Your task to perform on an android device: change text size in settings app Image 0: 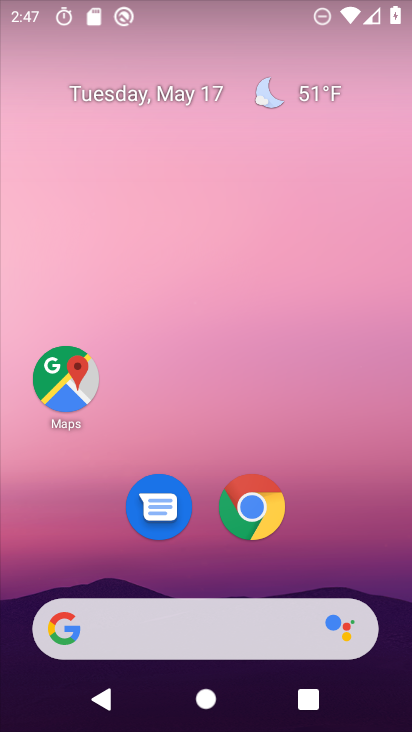
Step 0: drag from (198, 560) to (199, 66)
Your task to perform on an android device: change text size in settings app Image 1: 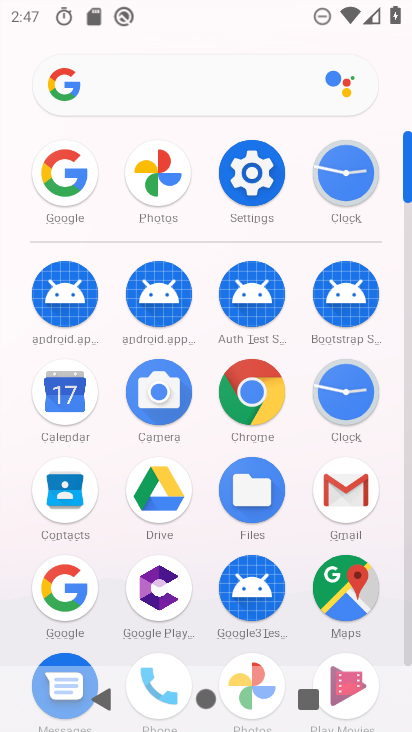
Step 1: click (262, 178)
Your task to perform on an android device: change text size in settings app Image 2: 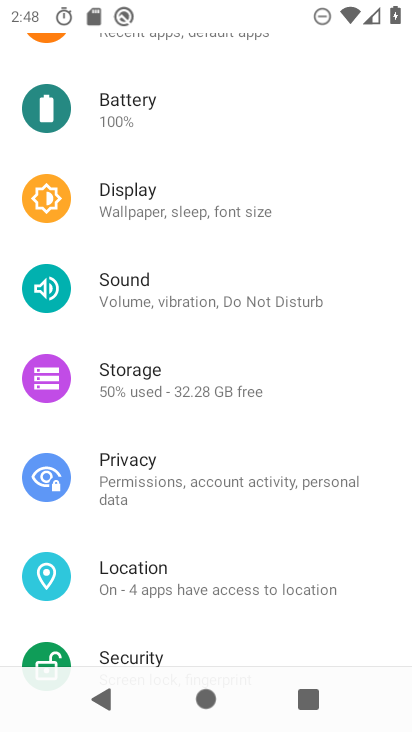
Step 2: drag from (177, 194) to (215, 391)
Your task to perform on an android device: change text size in settings app Image 3: 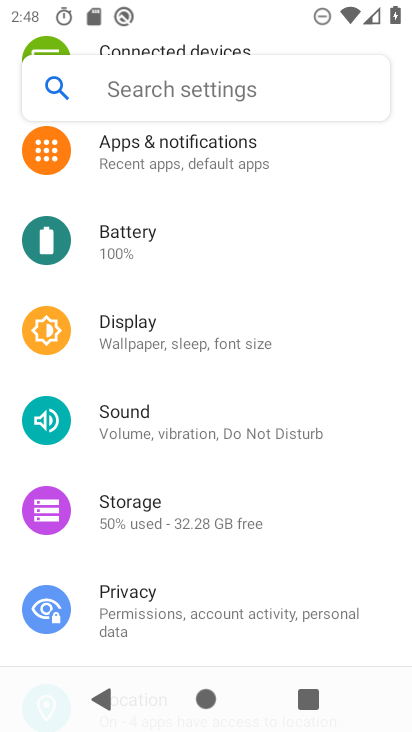
Step 3: click (157, 339)
Your task to perform on an android device: change text size in settings app Image 4: 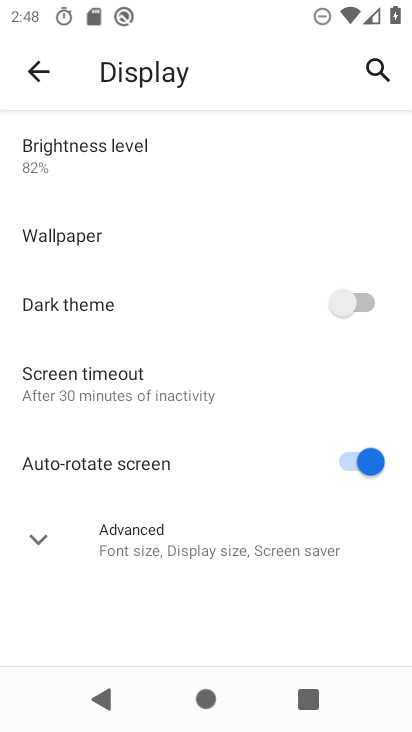
Step 4: click (134, 558)
Your task to perform on an android device: change text size in settings app Image 5: 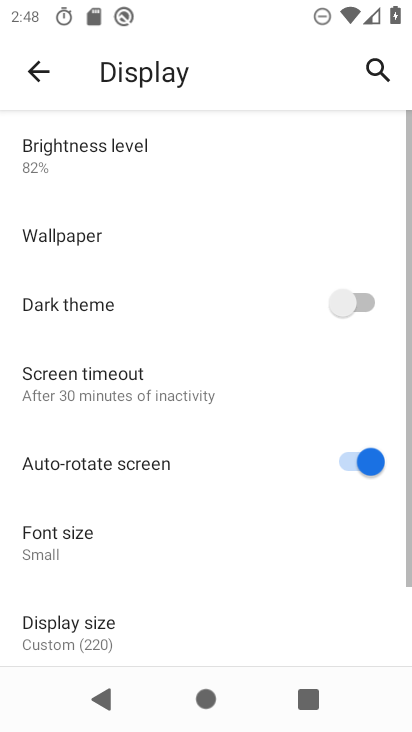
Step 5: drag from (172, 492) to (172, 232)
Your task to perform on an android device: change text size in settings app Image 6: 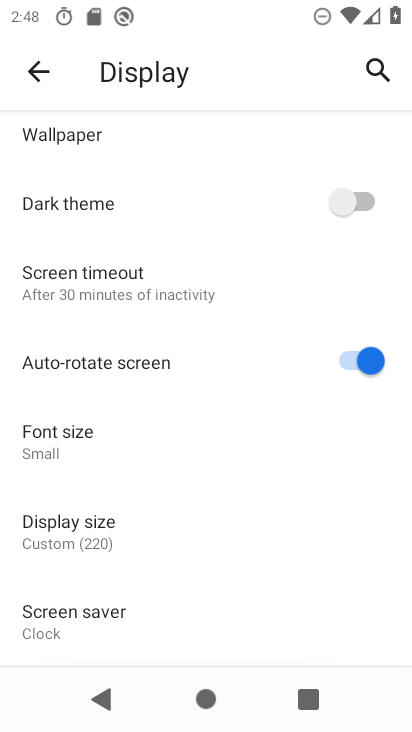
Step 6: click (127, 451)
Your task to perform on an android device: change text size in settings app Image 7: 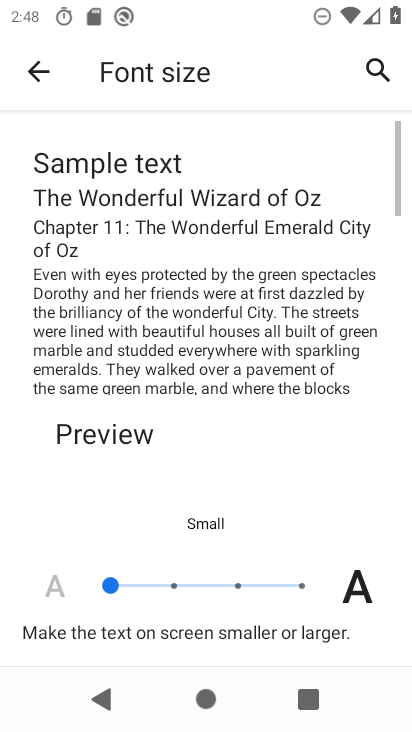
Step 7: task complete